Your task to perform on an android device: Open privacy settings Image 0: 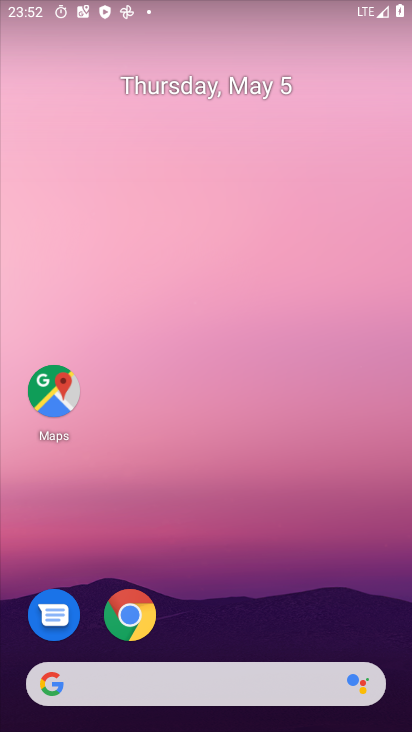
Step 0: click (130, 615)
Your task to perform on an android device: Open privacy settings Image 1: 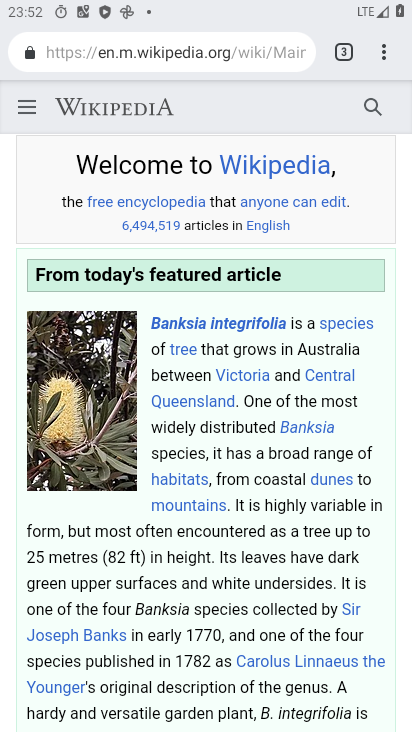
Step 1: click (376, 47)
Your task to perform on an android device: Open privacy settings Image 2: 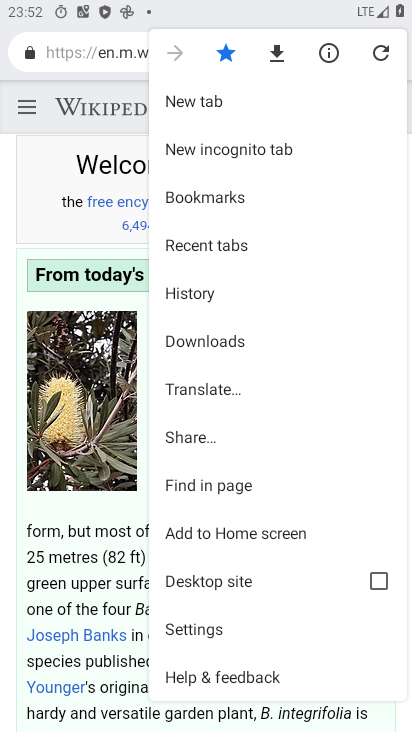
Step 2: click (243, 628)
Your task to perform on an android device: Open privacy settings Image 3: 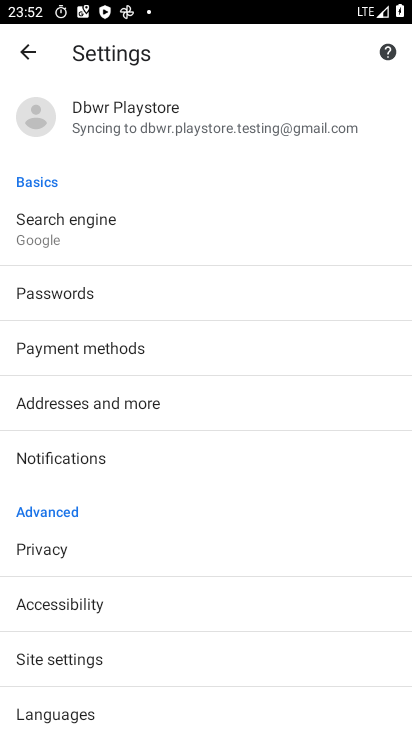
Step 3: click (97, 554)
Your task to perform on an android device: Open privacy settings Image 4: 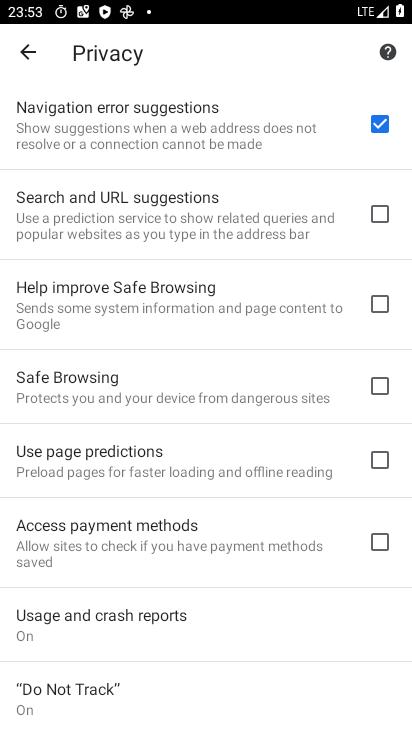
Step 4: task complete